Your task to perform on an android device: open chrome privacy settings Image 0: 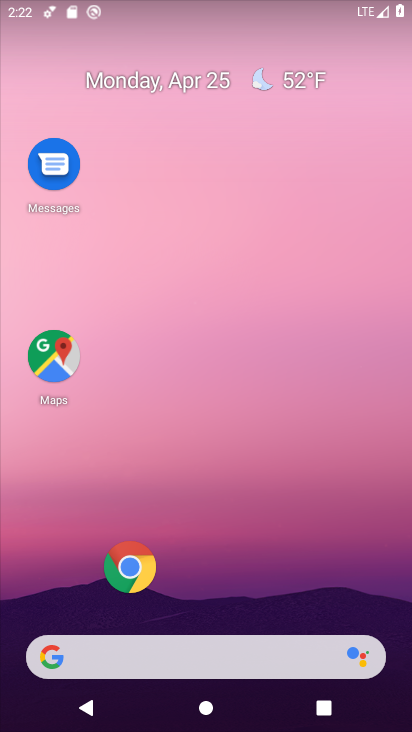
Step 0: drag from (281, 536) to (293, 176)
Your task to perform on an android device: open chrome privacy settings Image 1: 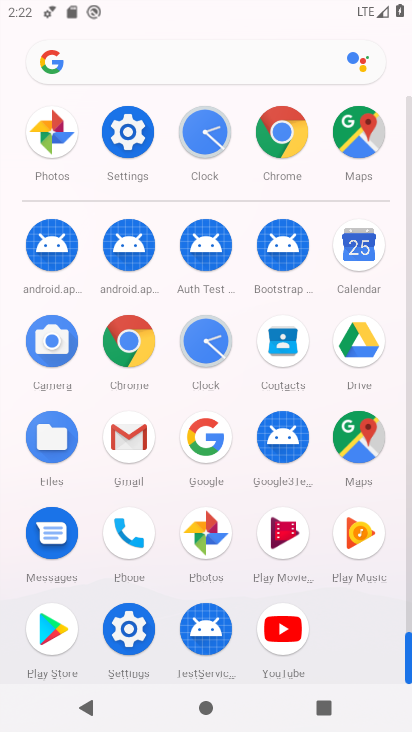
Step 1: click (276, 167)
Your task to perform on an android device: open chrome privacy settings Image 2: 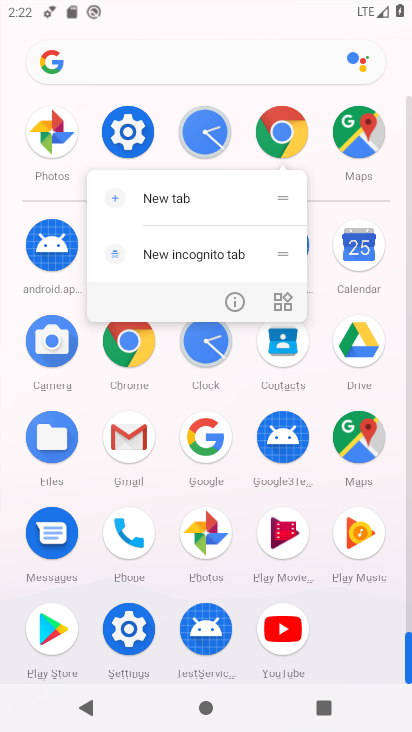
Step 2: click (120, 348)
Your task to perform on an android device: open chrome privacy settings Image 3: 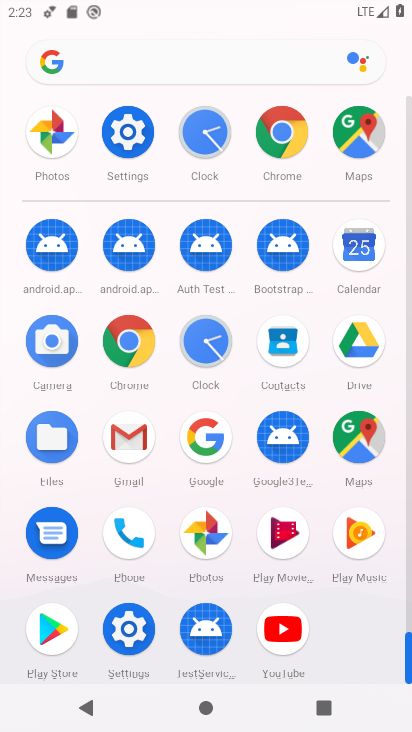
Step 3: click (126, 370)
Your task to perform on an android device: open chrome privacy settings Image 4: 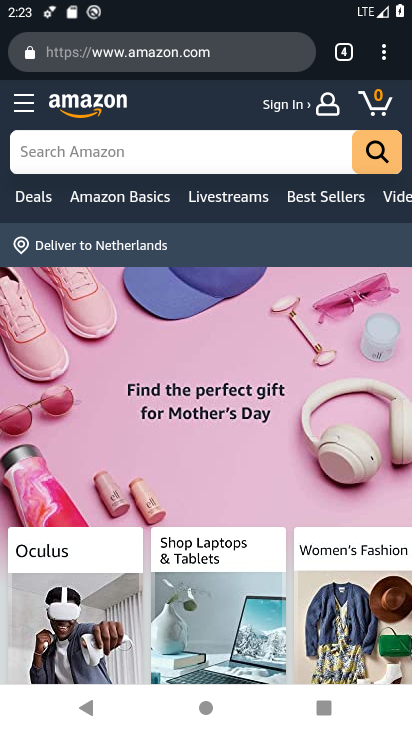
Step 4: click (381, 54)
Your task to perform on an android device: open chrome privacy settings Image 5: 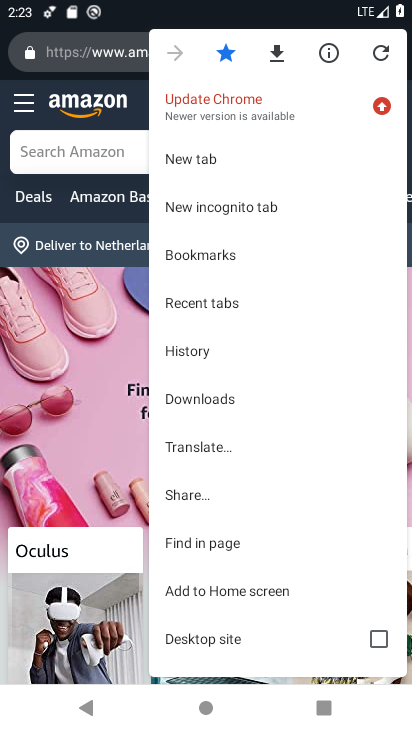
Step 5: drag from (216, 400) to (217, 352)
Your task to perform on an android device: open chrome privacy settings Image 6: 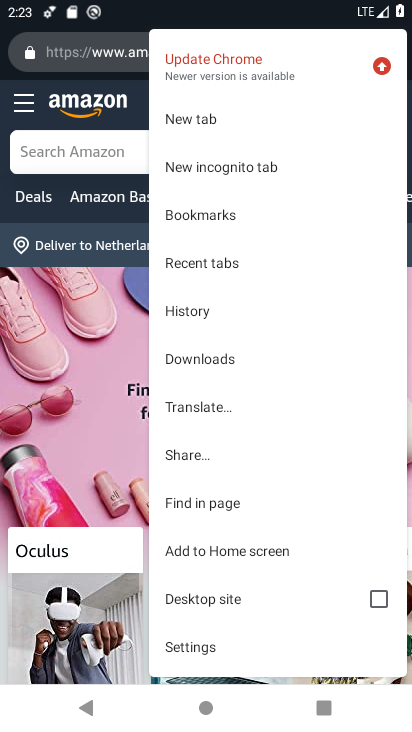
Step 6: drag from (211, 595) to (250, 349)
Your task to perform on an android device: open chrome privacy settings Image 7: 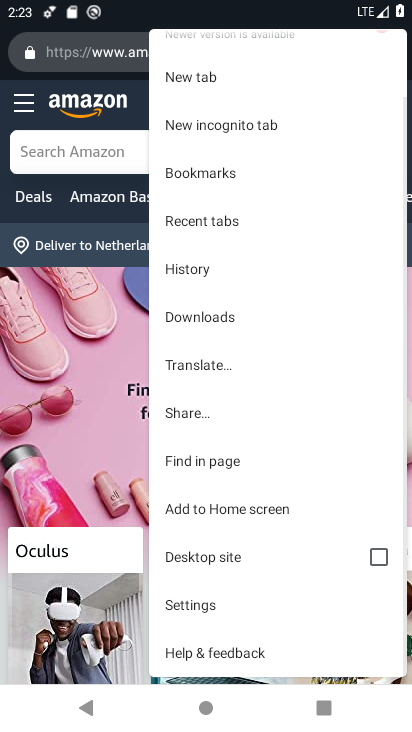
Step 7: click (210, 614)
Your task to perform on an android device: open chrome privacy settings Image 8: 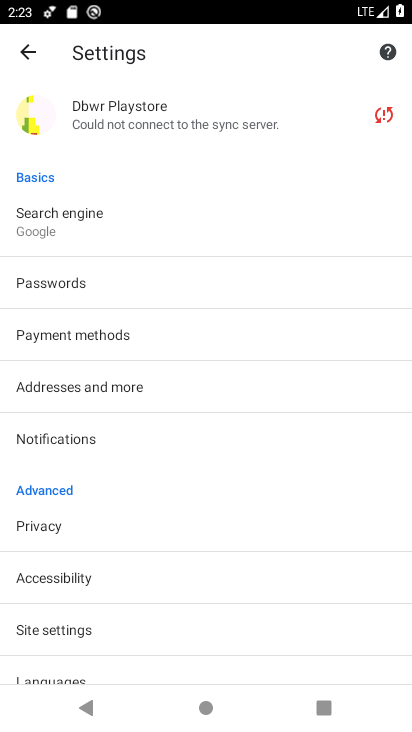
Step 8: click (64, 530)
Your task to perform on an android device: open chrome privacy settings Image 9: 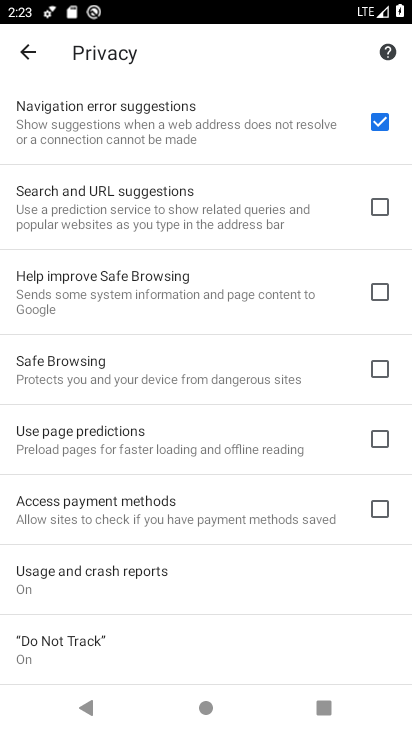
Step 9: task complete